Your task to perform on an android device: Open Google Chrome Image 0: 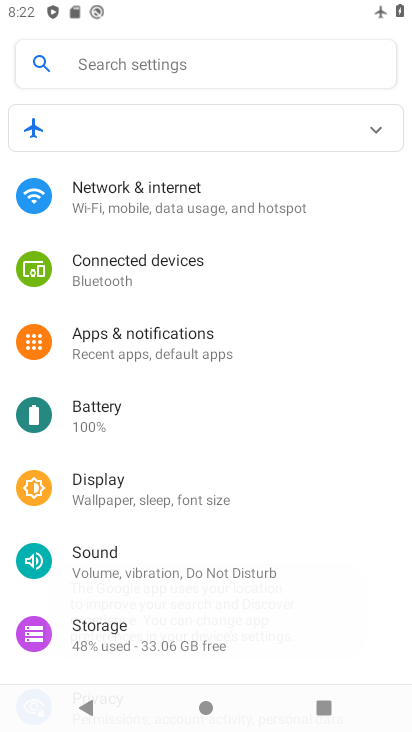
Step 0: press home button
Your task to perform on an android device: Open Google Chrome Image 1: 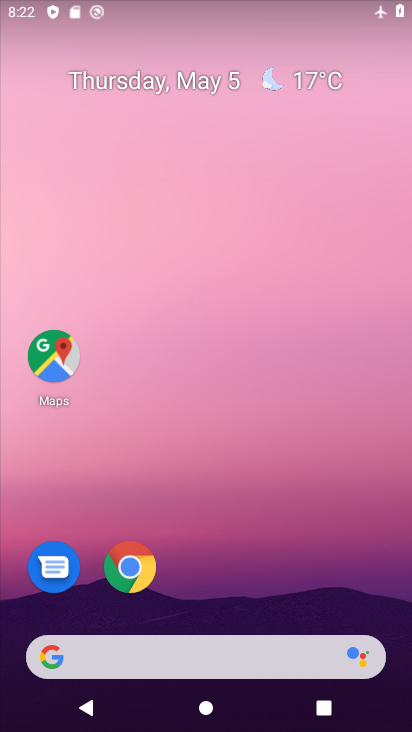
Step 1: click (122, 569)
Your task to perform on an android device: Open Google Chrome Image 2: 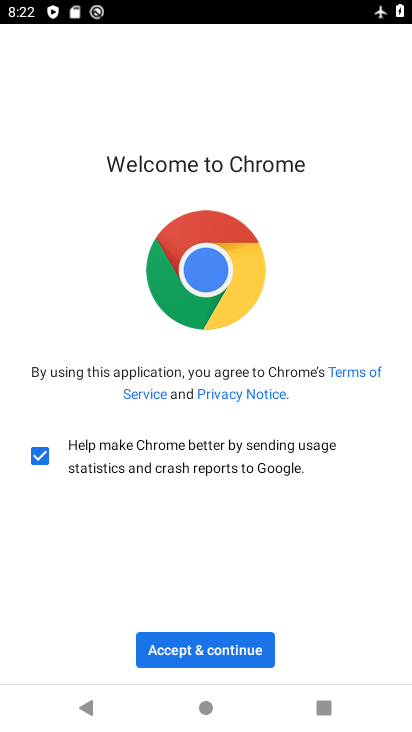
Step 2: click (189, 654)
Your task to perform on an android device: Open Google Chrome Image 3: 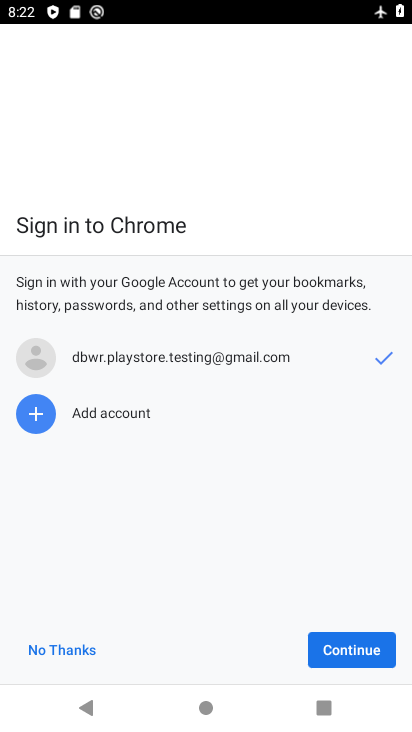
Step 3: click (330, 646)
Your task to perform on an android device: Open Google Chrome Image 4: 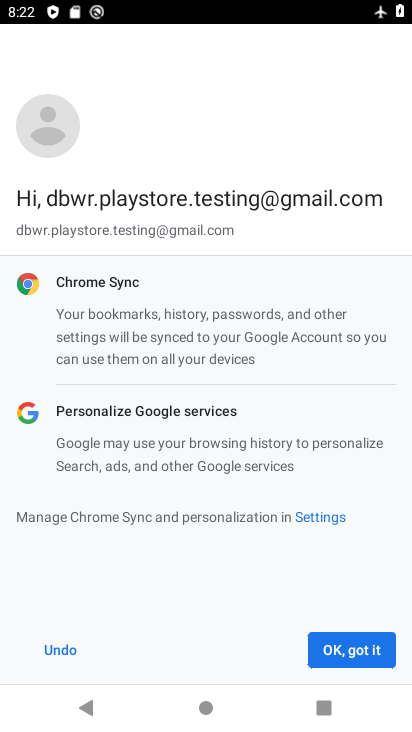
Step 4: click (342, 648)
Your task to perform on an android device: Open Google Chrome Image 5: 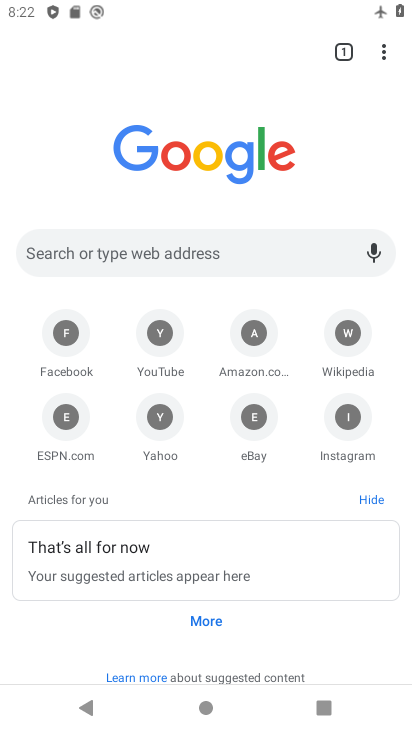
Step 5: task complete